Your task to perform on an android device: Open the stopwatch Image 0: 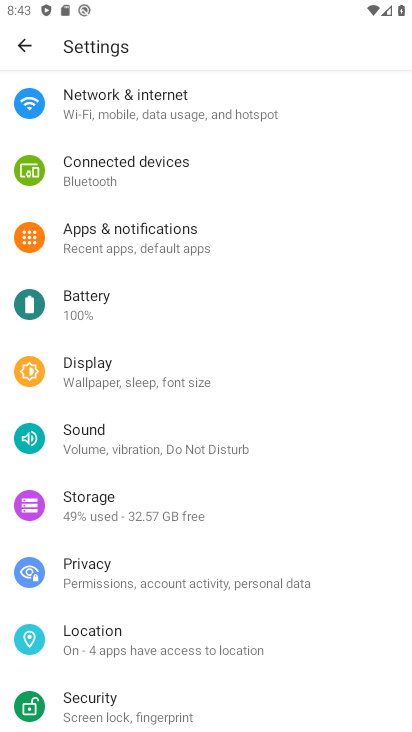
Step 0: press home button
Your task to perform on an android device: Open the stopwatch Image 1: 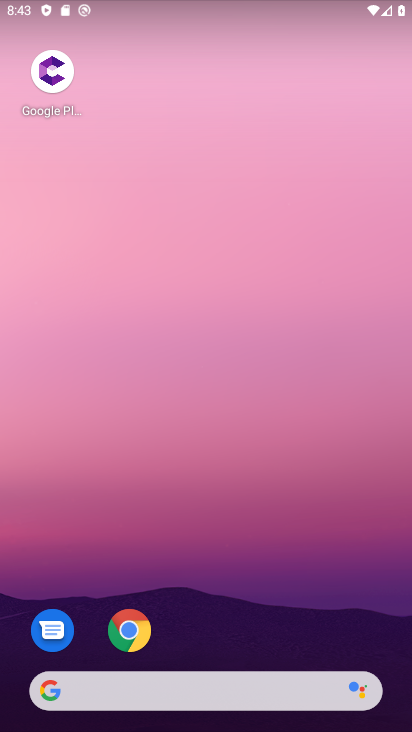
Step 1: drag from (373, 577) to (340, 173)
Your task to perform on an android device: Open the stopwatch Image 2: 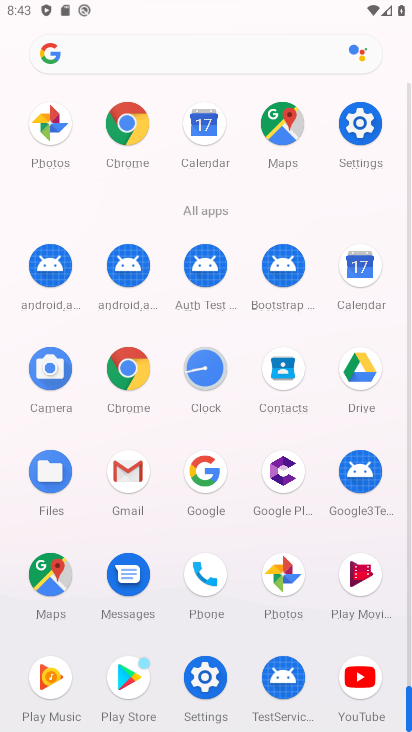
Step 2: click (202, 379)
Your task to perform on an android device: Open the stopwatch Image 3: 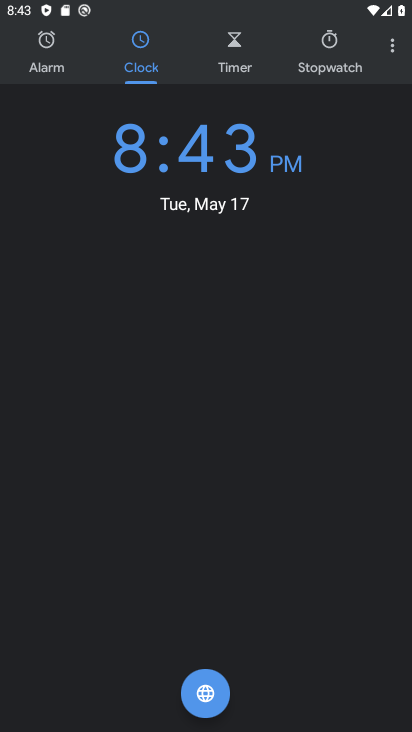
Step 3: click (318, 54)
Your task to perform on an android device: Open the stopwatch Image 4: 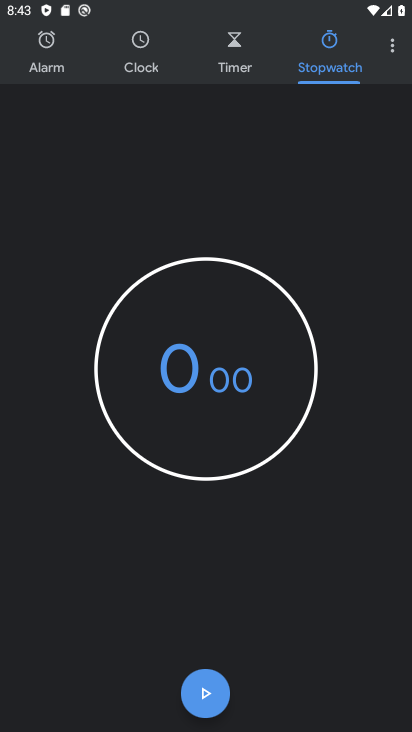
Step 4: task complete